Your task to perform on an android device: search for starred emails in the gmail app Image 0: 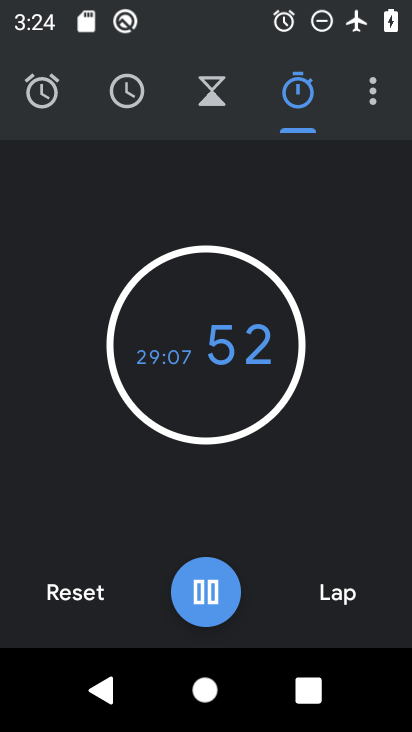
Step 0: press home button
Your task to perform on an android device: search for starred emails in the gmail app Image 1: 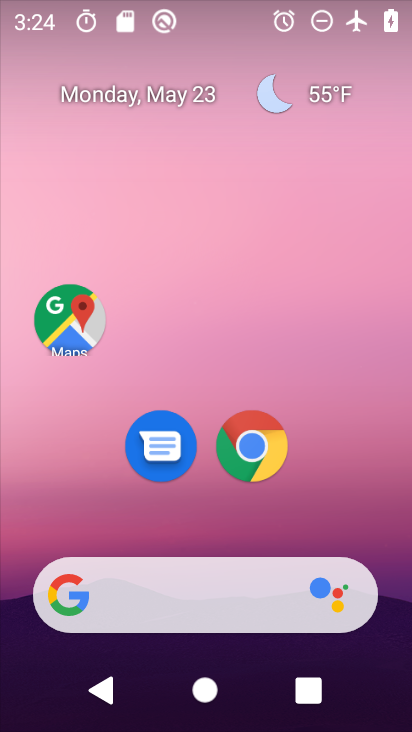
Step 1: drag from (201, 515) to (146, 189)
Your task to perform on an android device: search for starred emails in the gmail app Image 2: 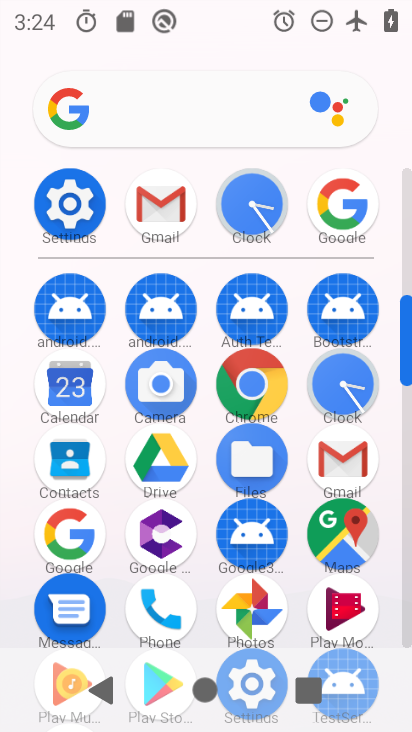
Step 2: click (341, 474)
Your task to perform on an android device: search for starred emails in the gmail app Image 3: 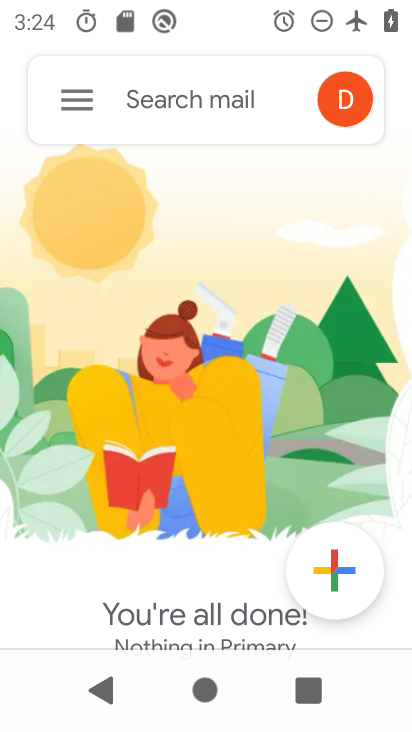
Step 3: click (62, 95)
Your task to perform on an android device: search for starred emails in the gmail app Image 4: 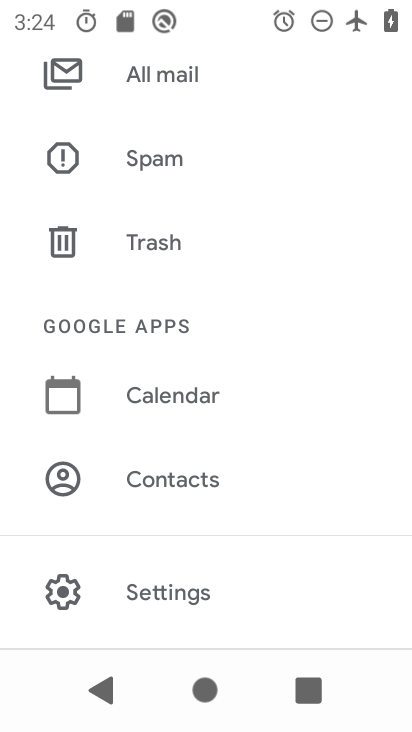
Step 4: drag from (168, 185) to (206, 413)
Your task to perform on an android device: search for starred emails in the gmail app Image 5: 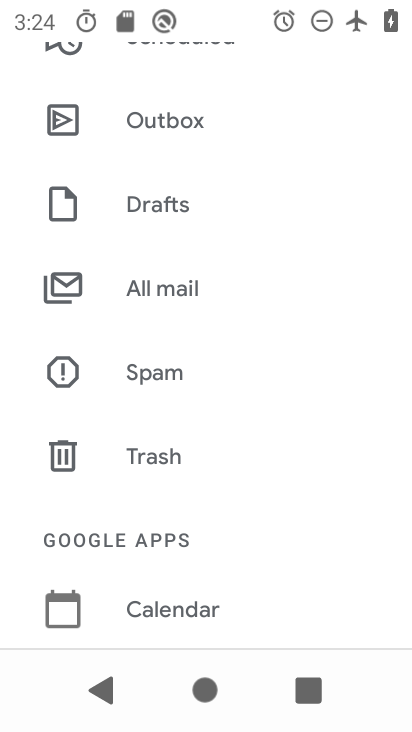
Step 5: drag from (143, 144) to (180, 437)
Your task to perform on an android device: search for starred emails in the gmail app Image 6: 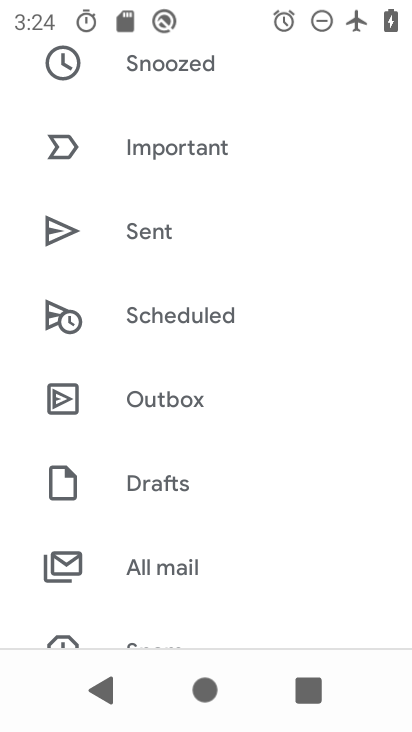
Step 6: drag from (150, 134) to (190, 365)
Your task to perform on an android device: search for starred emails in the gmail app Image 7: 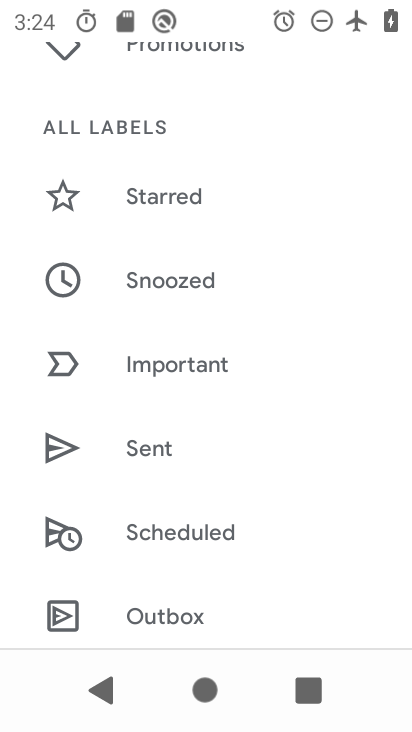
Step 7: click (179, 181)
Your task to perform on an android device: search for starred emails in the gmail app Image 8: 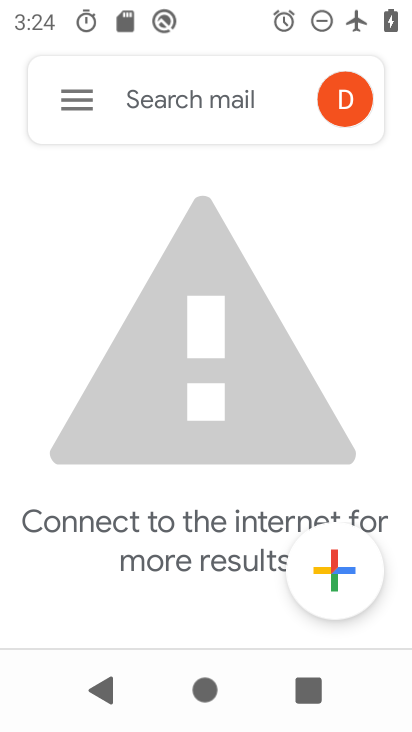
Step 8: task complete